Your task to perform on an android device: install app "Adobe Acrobat Reader" Image 0: 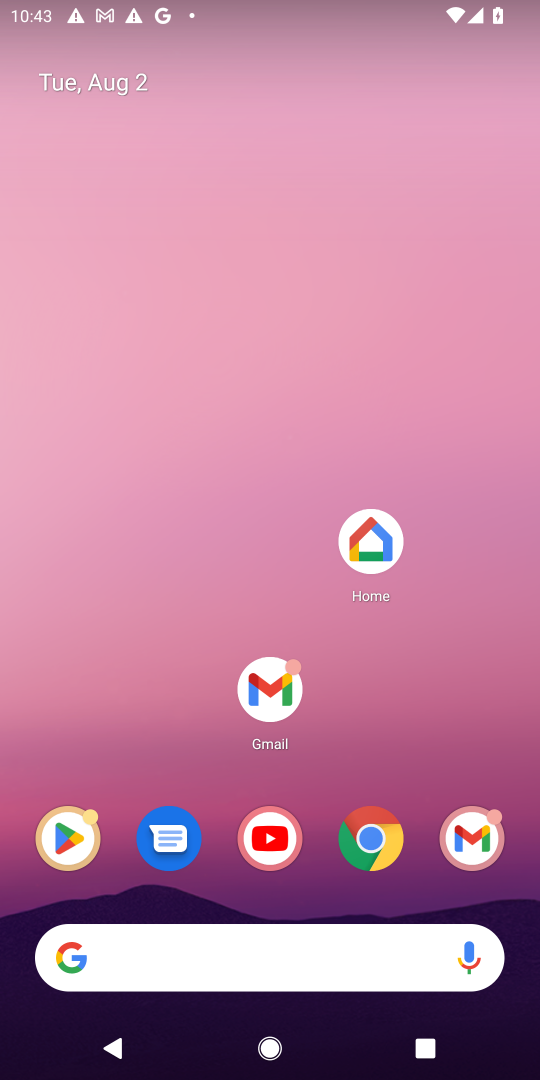
Step 0: drag from (423, 713) to (454, 219)
Your task to perform on an android device: install app "Adobe Acrobat Reader" Image 1: 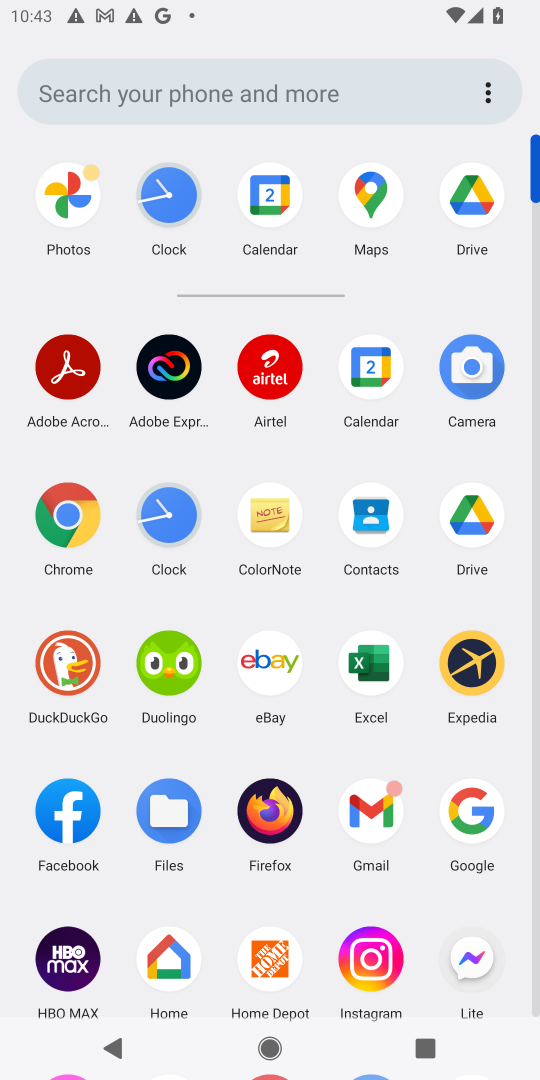
Step 1: drag from (422, 887) to (470, 550)
Your task to perform on an android device: install app "Adobe Acrobat Reader" Image 2: 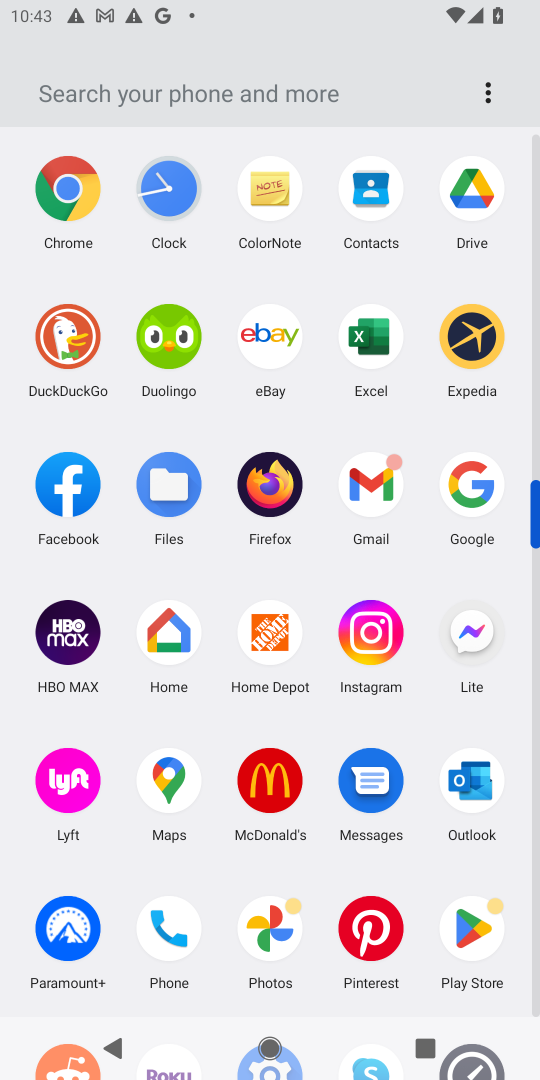
Step 2: drag from (410, 991) to (447, 707)
Your task to perform on an android device: install app "Adobe Acrobat Reader" Image 3: 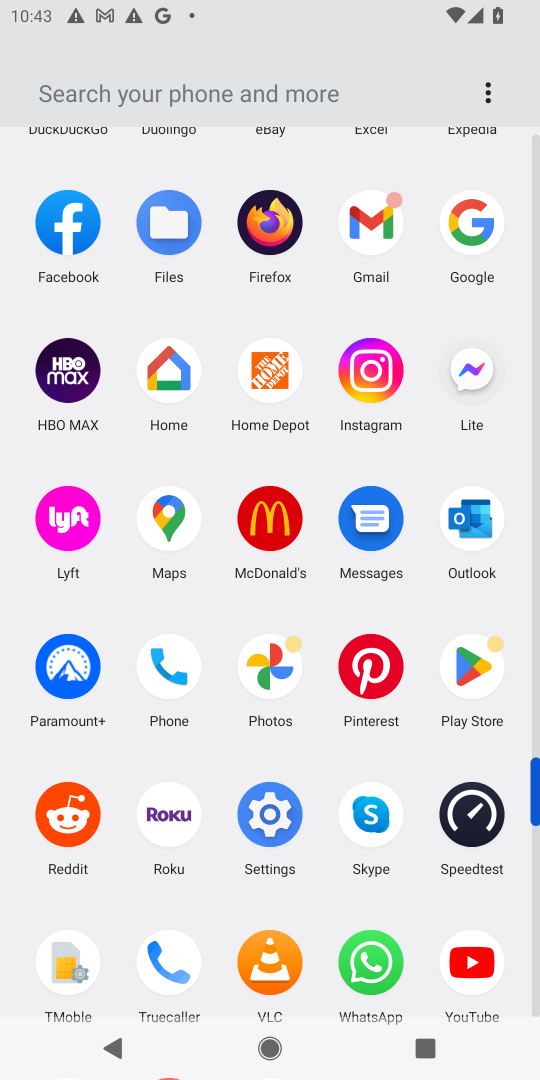
Step 3: click (474, 677)
Your task to perform on an android device: install app "Adobe Acrobat Reader" Image 4: 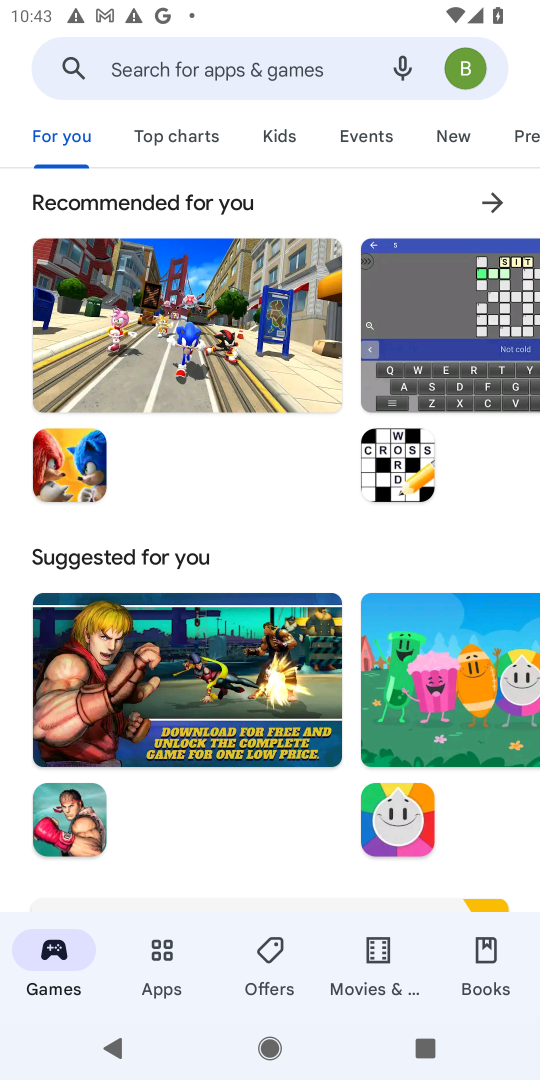
Step 4: click (315, 73)
Your task to perform on an android device: install app "Adobe Acrobat Reader" Image 5: 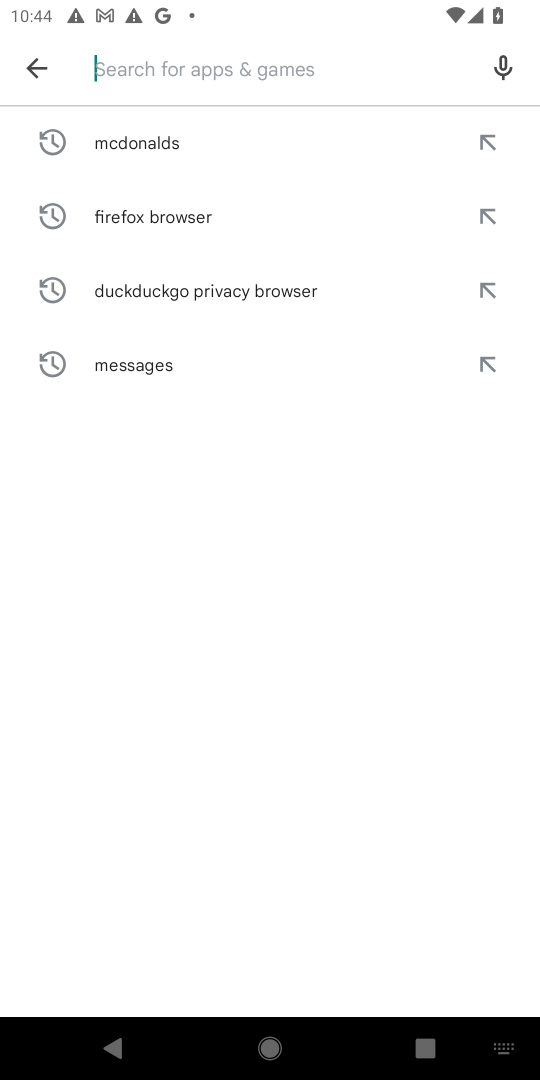
Step 5: type "adobe acrobat reader"
Your task to perform on an android device: install app "Adobe Acrobat Reader" Image 6: 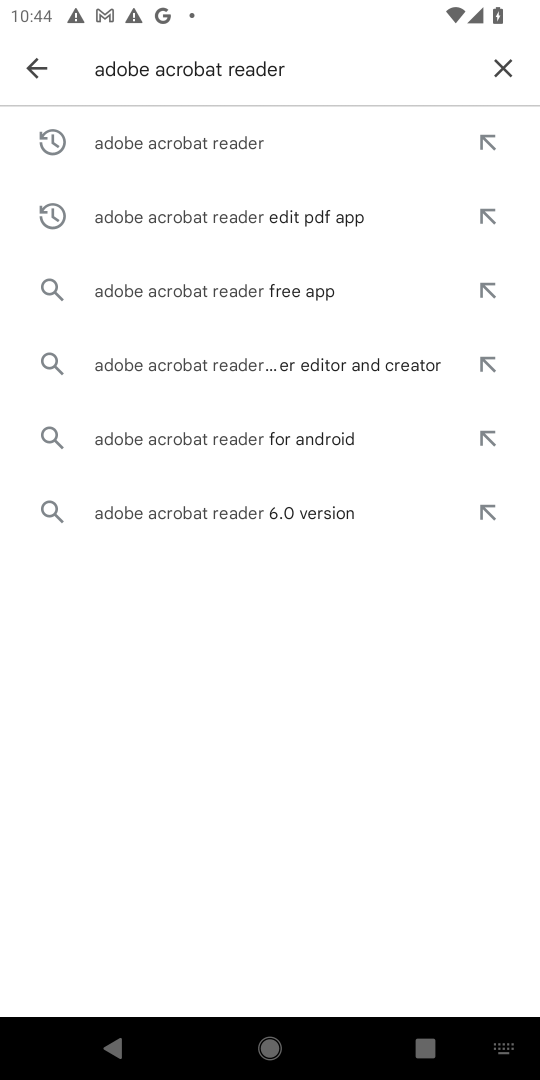
Step 6: click (324, 141)
Your task to perform on an android device: install app "Adobe Acrobat Reader" Image 7: 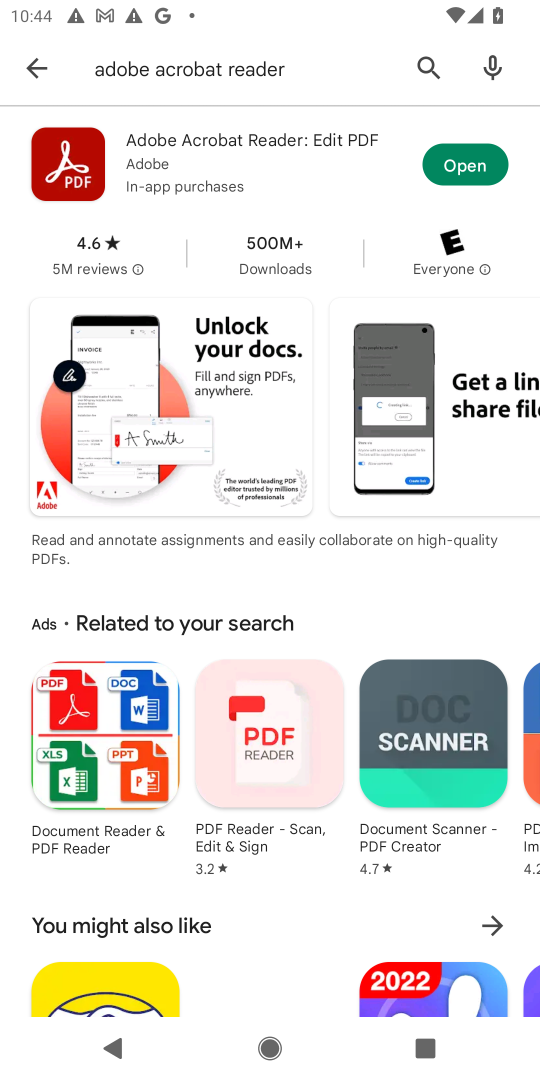
Step 7: task complete